Your task to perform on an android device: Is it going to rain today? Image 0: 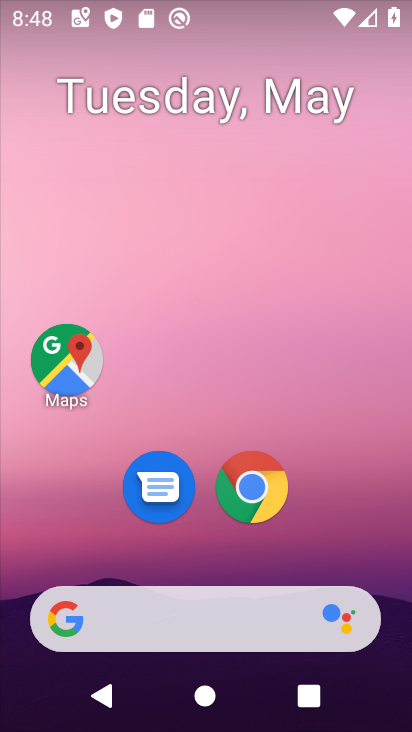
Step 0: click (238, 619)
Your task to perform on an android device: Is it going to rain today? Image 1: 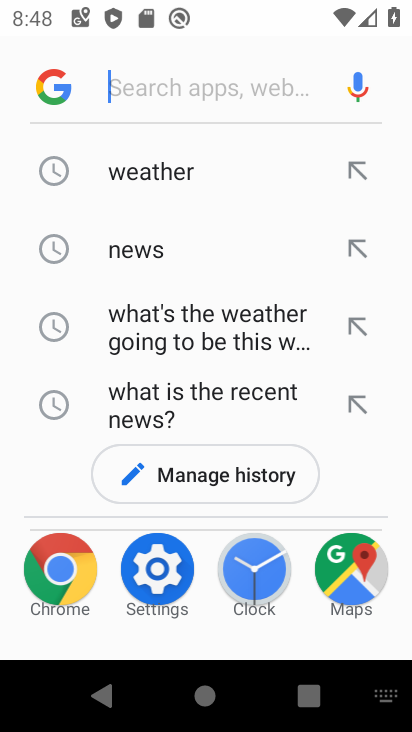
Step 1: click (191, 173)
Your task to perform on an android device: Is it going to rain today? Image 2: 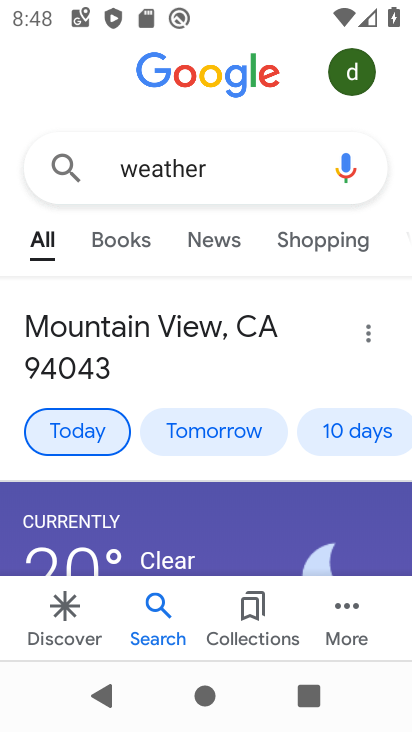
Step 2: drag from (285, 491) to (294, 252)
Your task to perform on an android device: Is it going to rain today? Image 3: 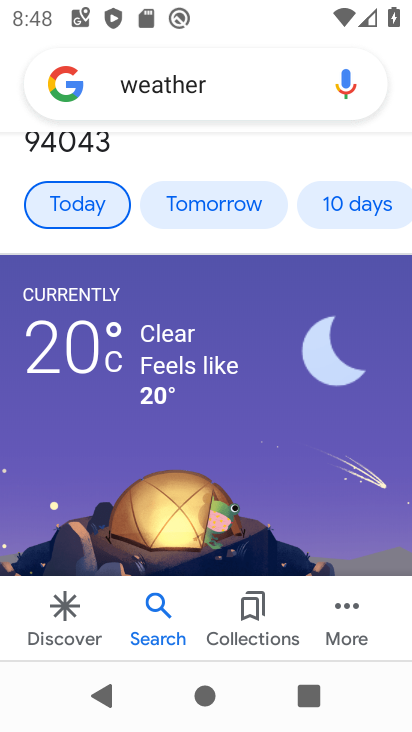
Step 3: click (58, 192)
Your task to perform on an android device: Is it going to rain today? Image 4: 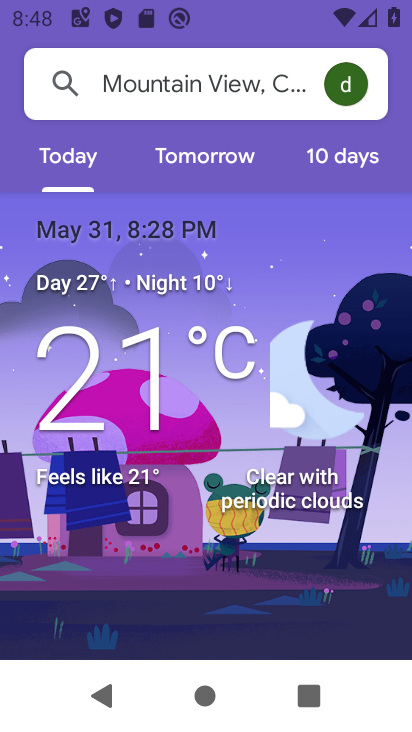
Step 4: task complete